Your task to perform on an android device: turn on improve location accuracy Image 0: 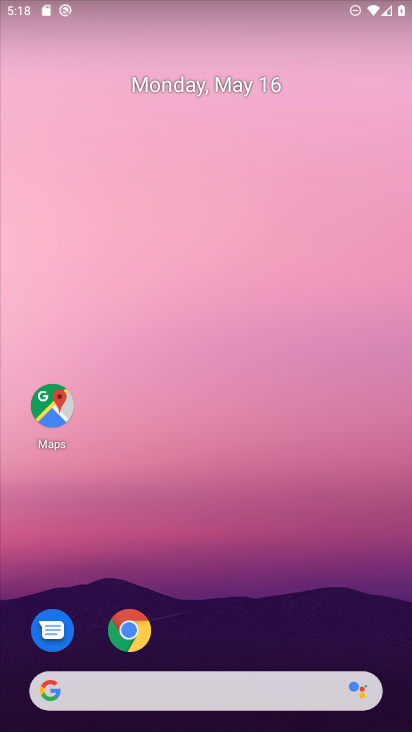
Step 0: press home button
Your task to perform on an android device: turn on improve location accuracy Image 1: 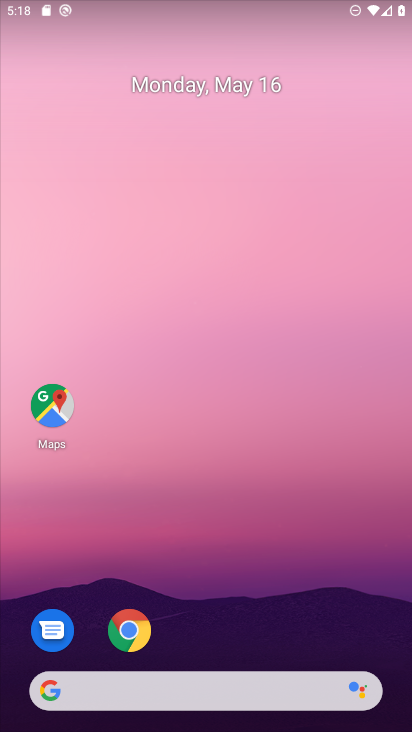
Step 1: drag from (213, 650) to (296, 94)
Your task to perform on an android device: turn on improve location accuracy Image 2: 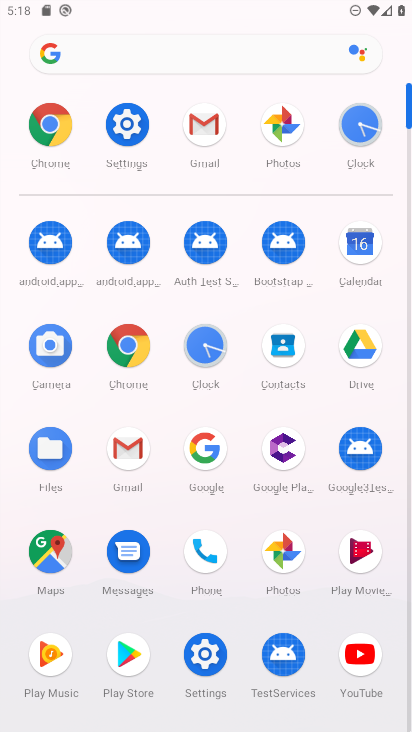
Step 2: click (146, 134)
Your task to perform on an android device: turn on improve location accuracy Image 3: 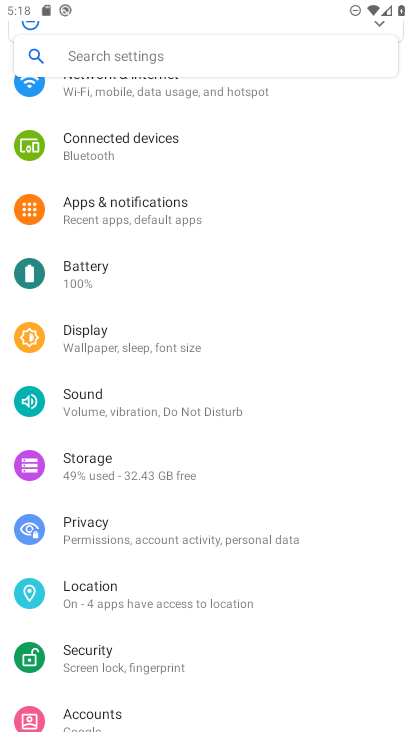
Step 3: drag from (139, 173) to (145, 307)
Your task to perform on an android device: turn on improve location accuracy Image 4: 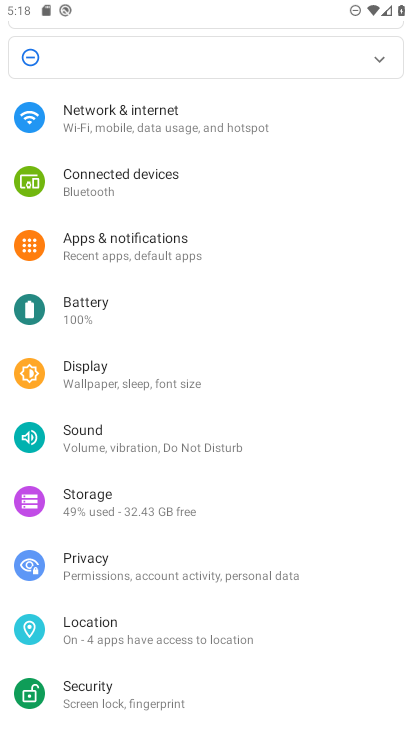
Step 4: click (132, 642)
Your task to perform on an android device: turn on improve location accuracy Image 5: 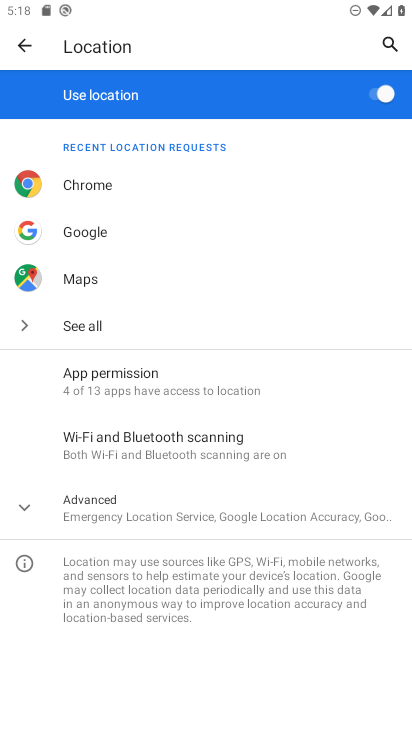
Step 5: click (104, 515)
Your task to perform on an android device: turn on improve location accuracy Image 6: 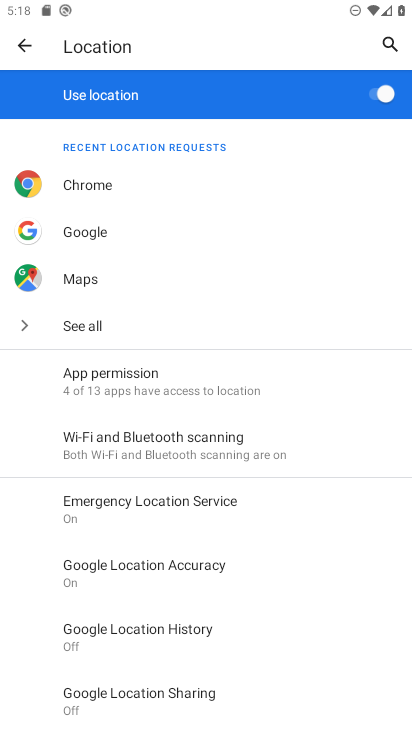
Step 6: click (92, 584)
Your task to perform on an android device: turn on improve location accuracy Image 7: 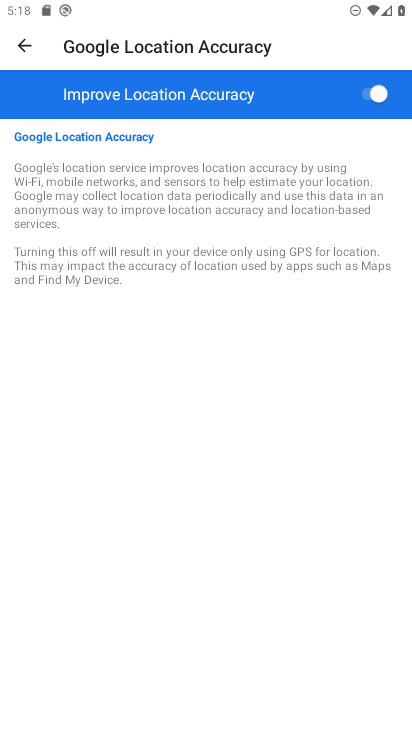
Step 7: task complete